Your task to perform on an android device: Open the calendar app, open the side menu, and click the "Day" option Image 0: 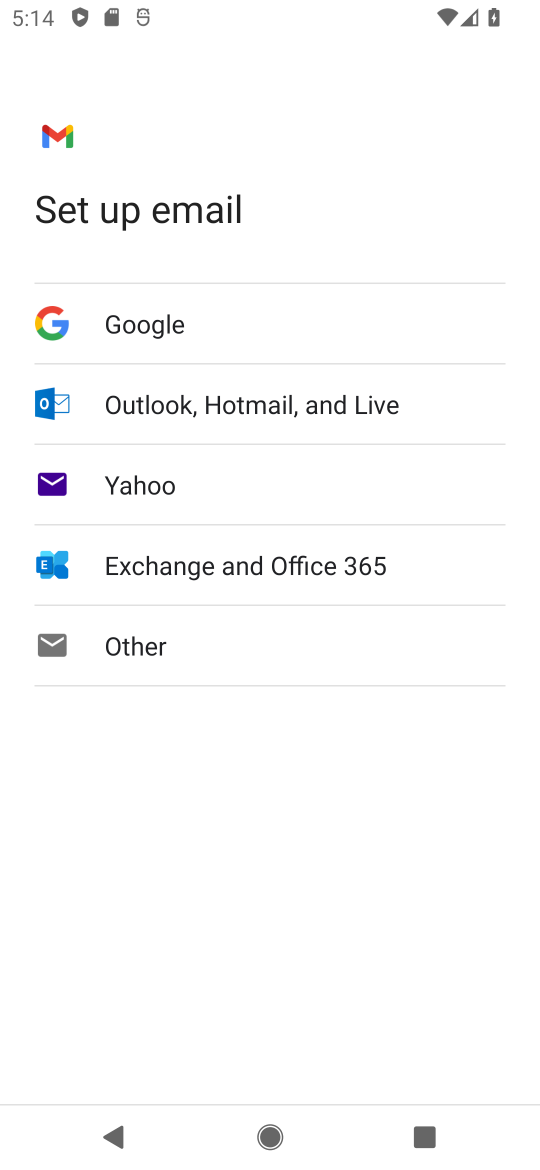
Step 0: press home button
Your task to perform on an android device: Open the calendar app, open the side menu, and click the "Day" option Image 1: 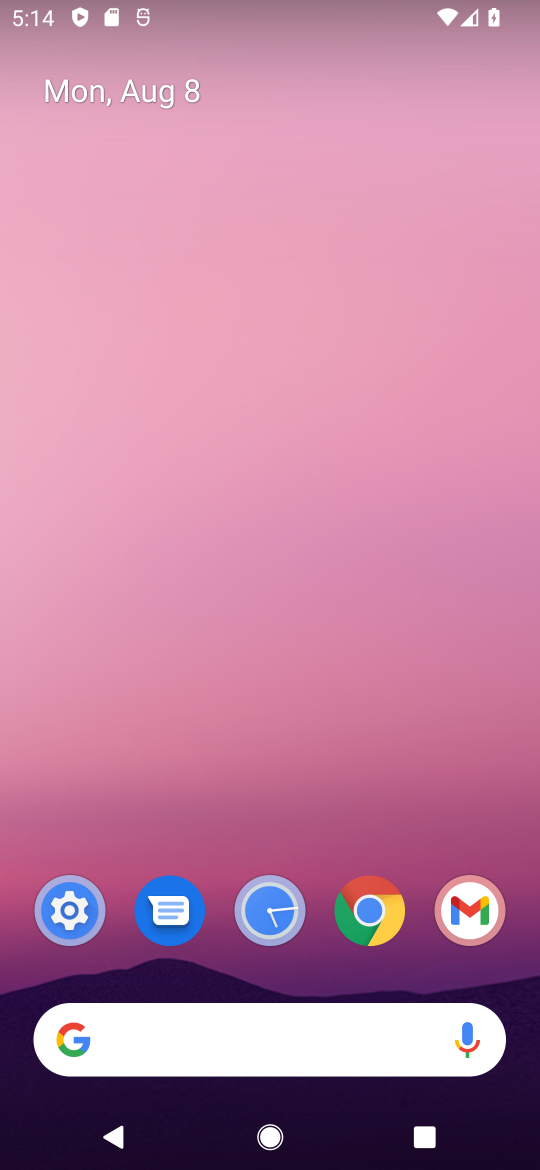
Step 1: drag from (226, 1030) to (290, 396)
Your task to perform on an android device: Open the calendar app, open the side menu, and click the "Day" option Image 2: 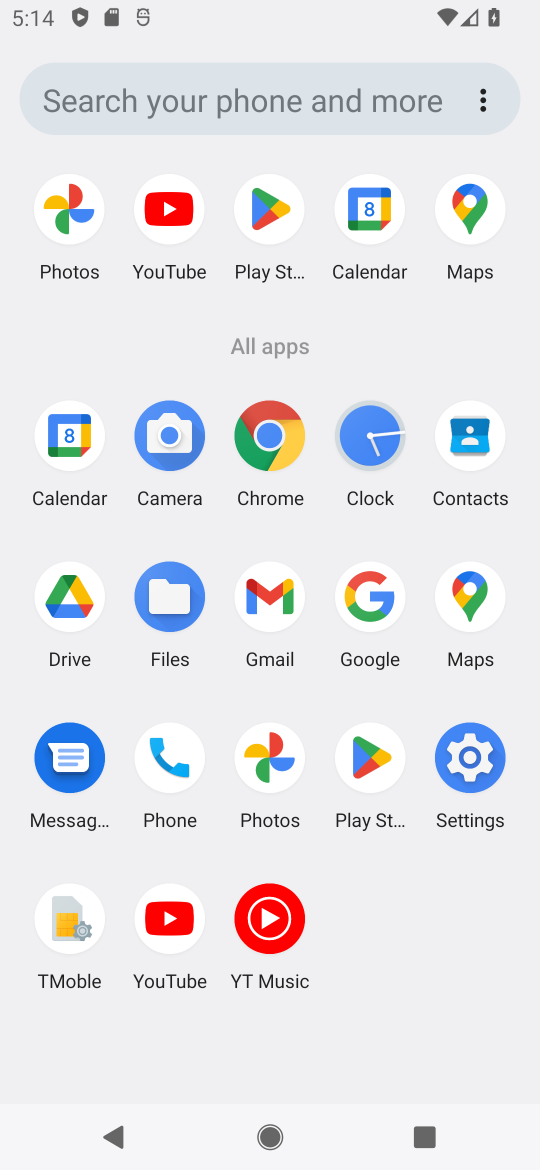
Step 2: click (69, 435)
Your task to perform on an android device: Open the calendar app, open the side menu, and click the "Day" option Image 3: 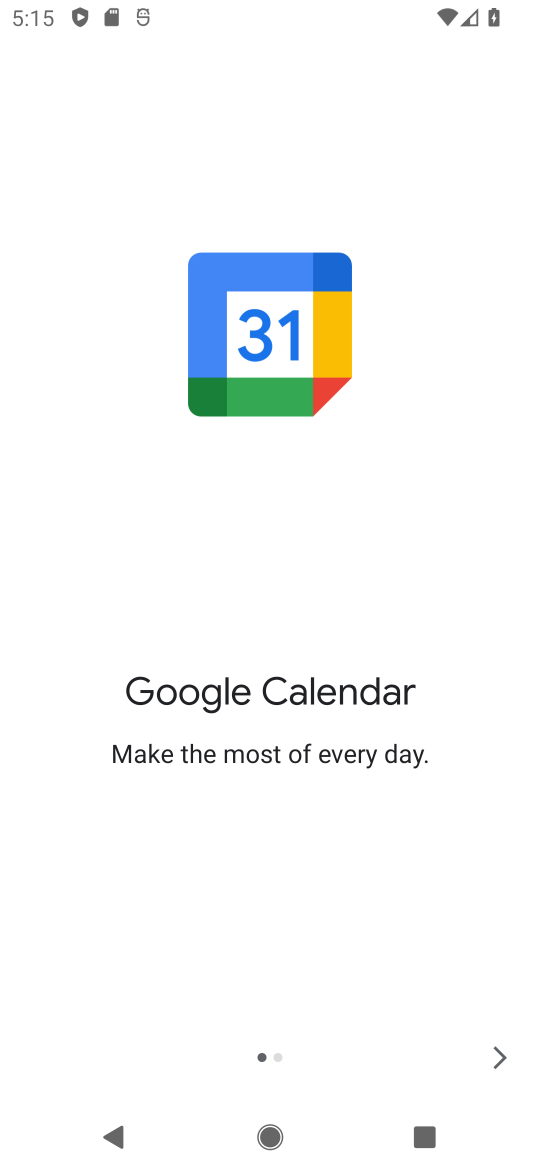
Step 3: click (503, 1054)
Your task to perform on an android device: Open the calendar app, open the side menu, and click the "Day" option Image 4: 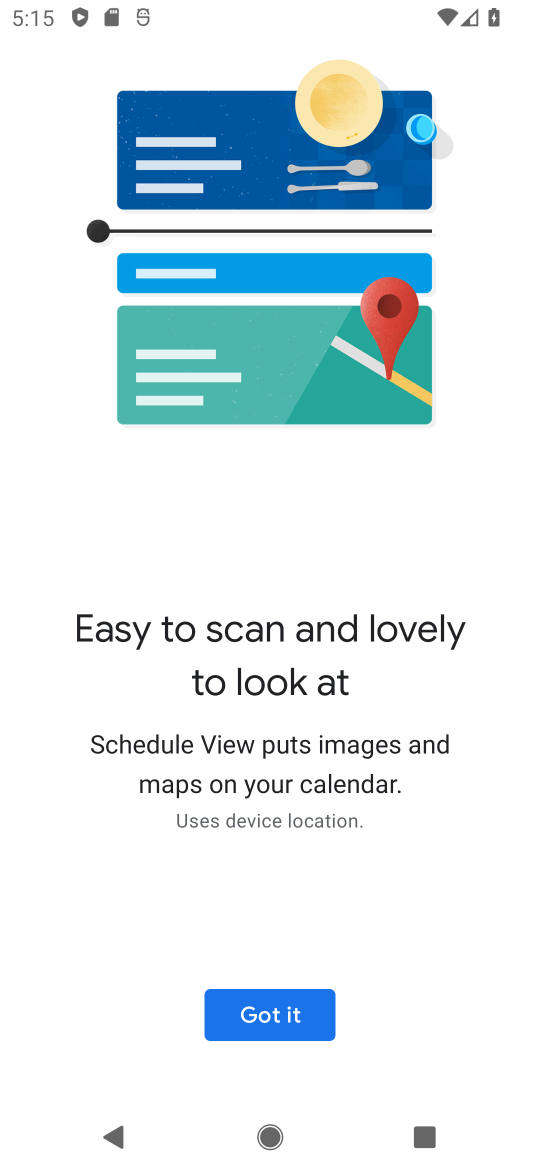
Step 4: click (288, 1018)
Your task to perform on an android device: Open the calendar app, open the side menu, and click the "Day" option Image 5: 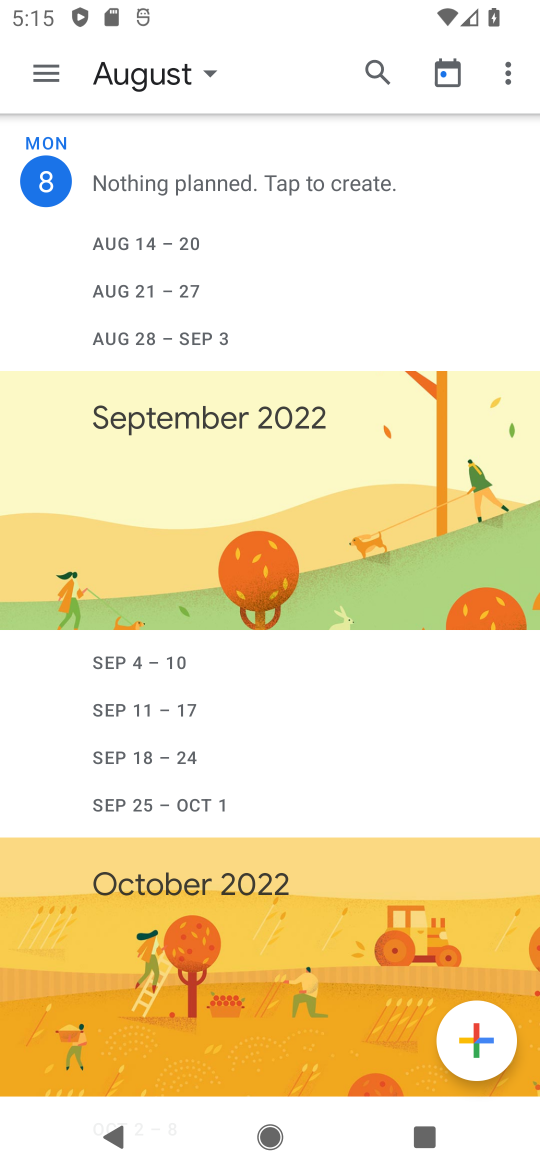
Step 5: click (47, 74)
Your task to perform on an android device: Open the calendar app, open the side menu, and click the "Day" option Image 6: 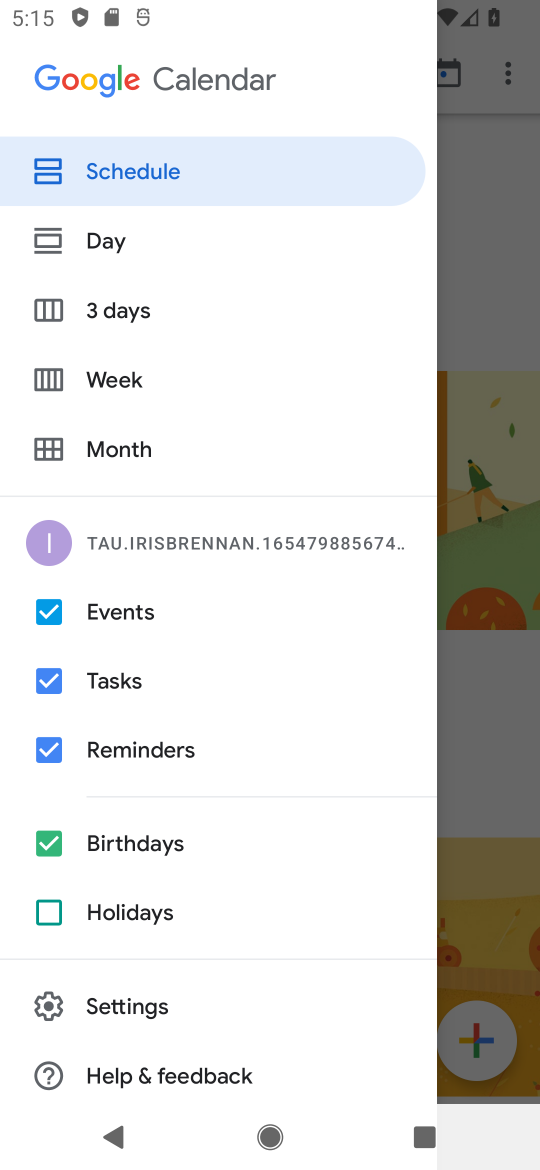
Step 6: click (101, 240)
Your task to perform on an android device: Open the calendar app, open the side menu, and click the "Day" option Image 7: 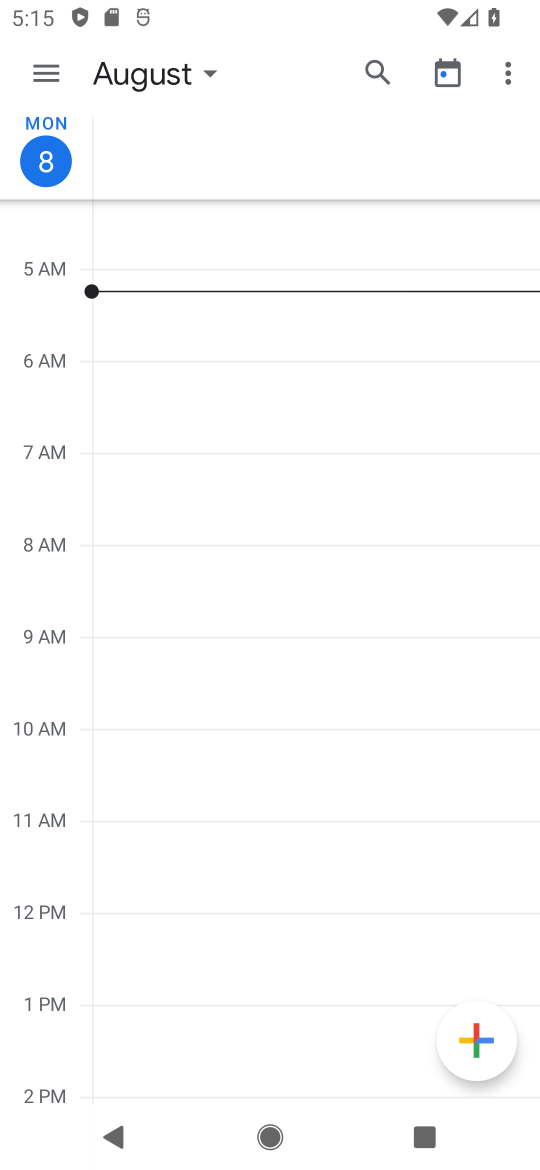
Step 7: task complete